Your task to perform on an android device: Open Google Image 0: 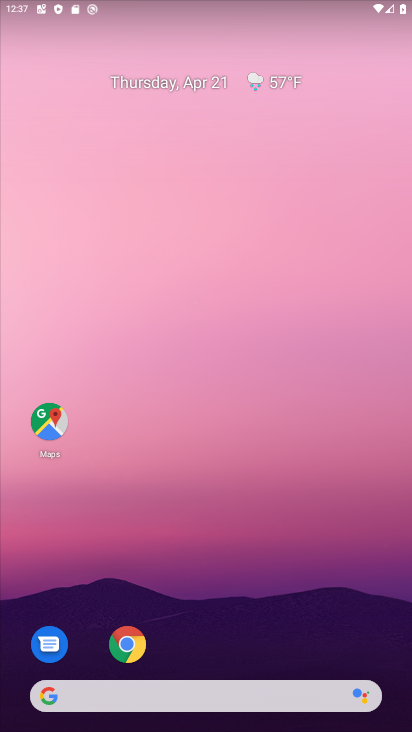
Step 0: drag from (212, 678) to (101, 6)
Your task to perform on an android device: Open Google Image 1: 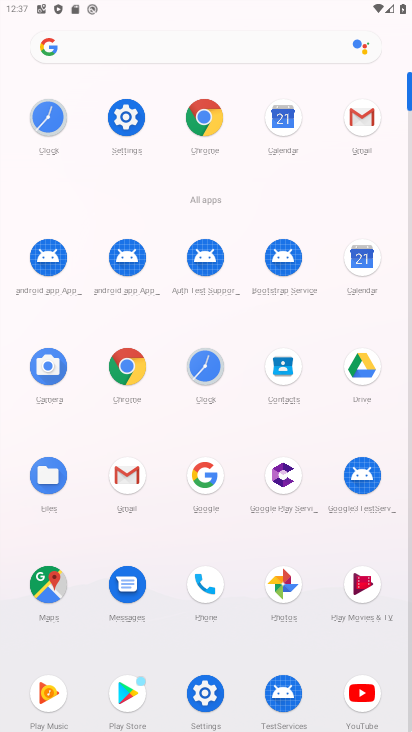
Step 1: click (213, 472)
Your task to perform on an android device: Open Google Image 2: 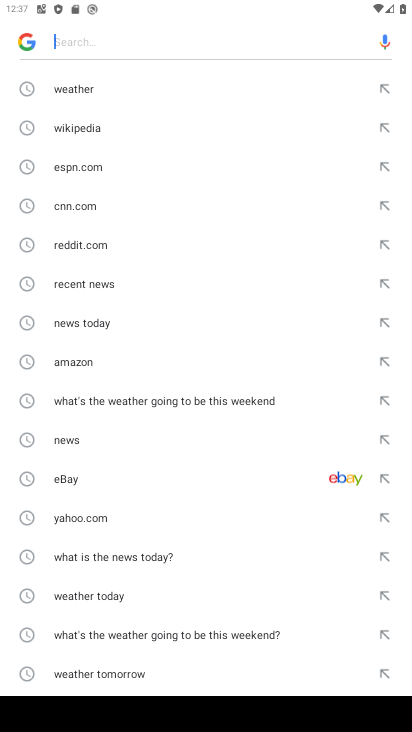
Step 2: task complete